Your task to perform on an android device: Open the calendar app, open the side menu, and click the "Day" option Image 0: 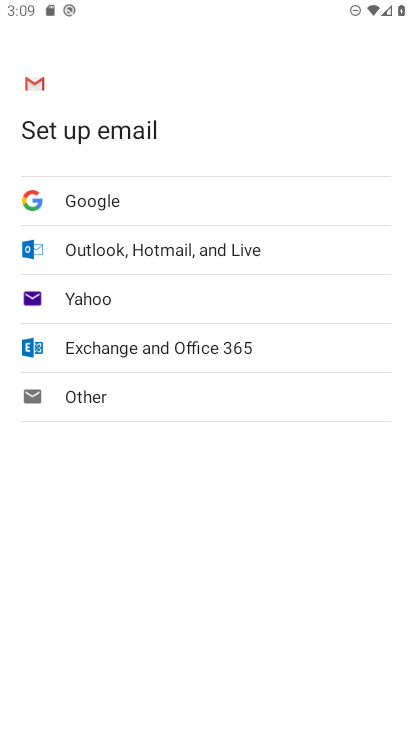
Step 0: press home button
Your task to perform on an android device: Open the calendar app, open the side menu, and click the "Day" option Image 1: 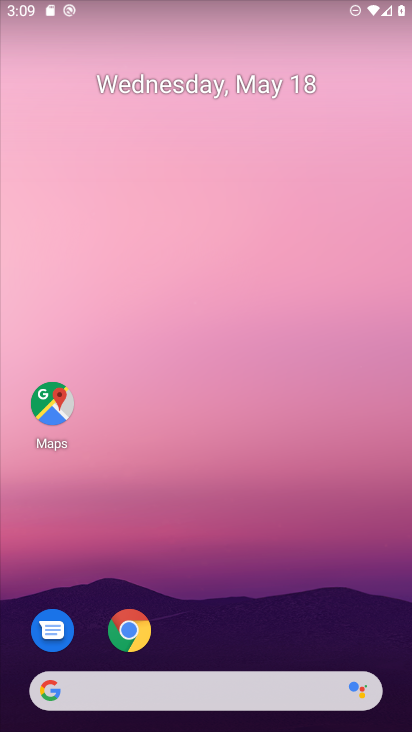
Step 1: drag from (251, 609) to (306, 174)
Your task to perform on an android device: Open the calendar app, open the side menu, and click the "Day" option Image 2: 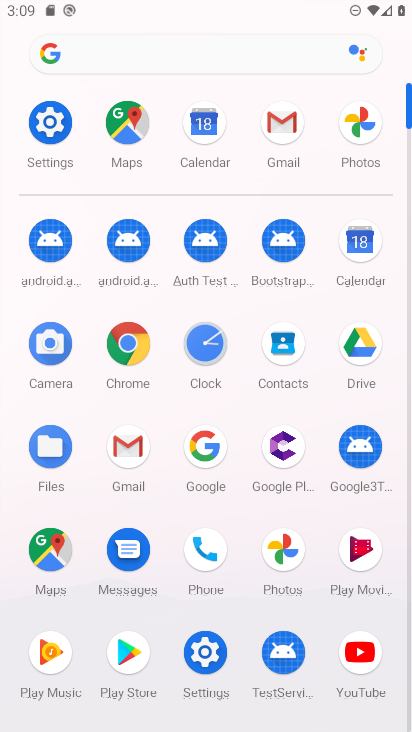
Step 2: click (366, 249)
Your task to perform on an android device: Open the calendar app, open the side menu, and click the "Day" option Image 3: 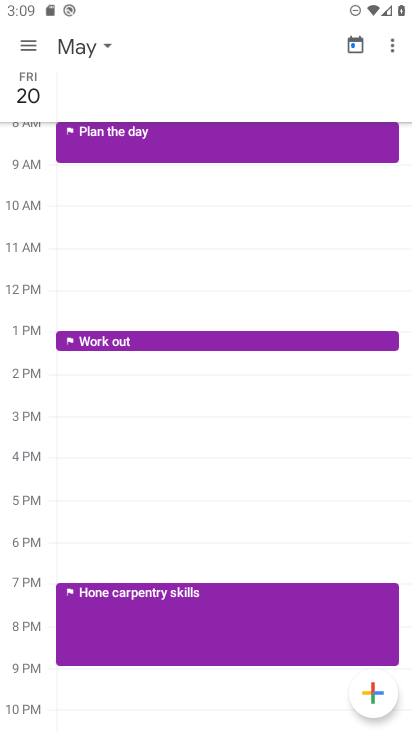
Step 3: click (27, 43)
Your task to perform on an android device: Open the calendar app, open the side menu, and click the "Day" option Image 4: 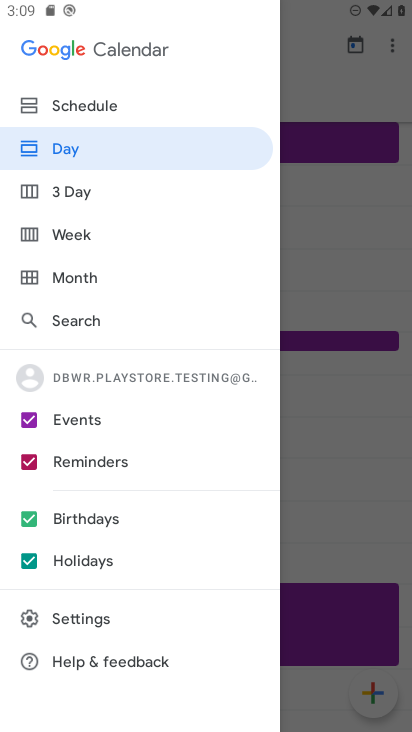
Step 4: click (74, 133)
Your task to perform on an android device: Open the calendar app, open the side menu, and click the "Day" option Image 5: 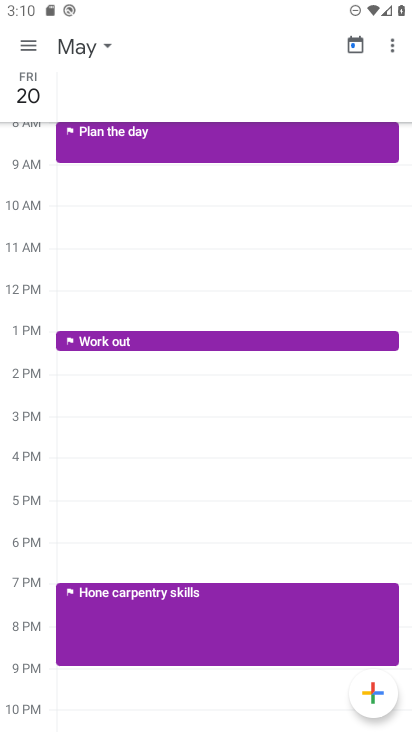
Step 5: task complete